Your task to perform on an android device: move an email to a new category in the gmail app Image 0: 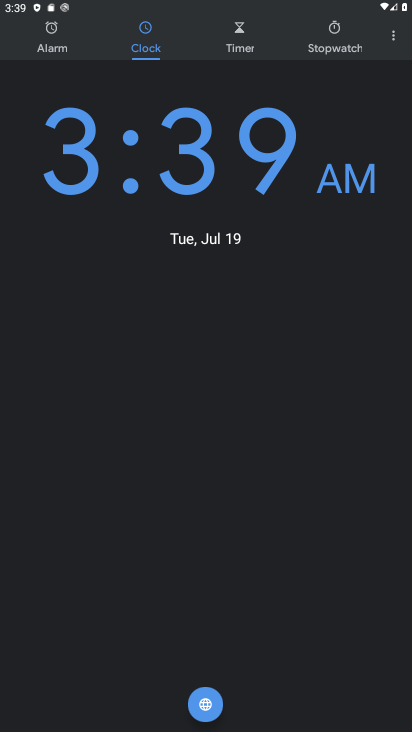
Step 0: press home button
Your task to perform on an android device: move an email to a new category in the gmail app Image 1: 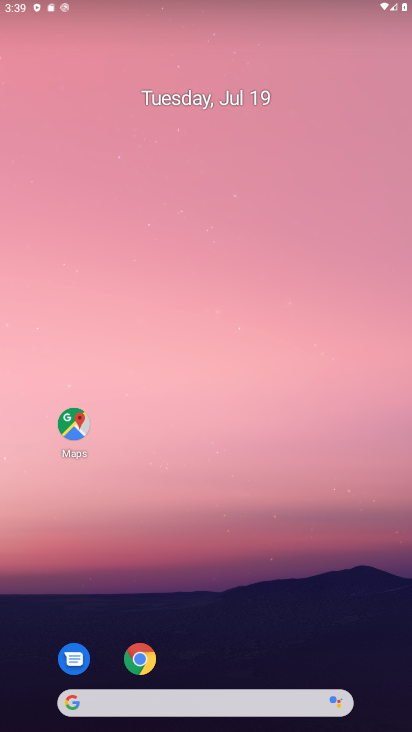
Step 1: drag from (207, 533) to (247, 86)
Your task to perform on an android device: move an email to a new category in the gmail app Image 2: 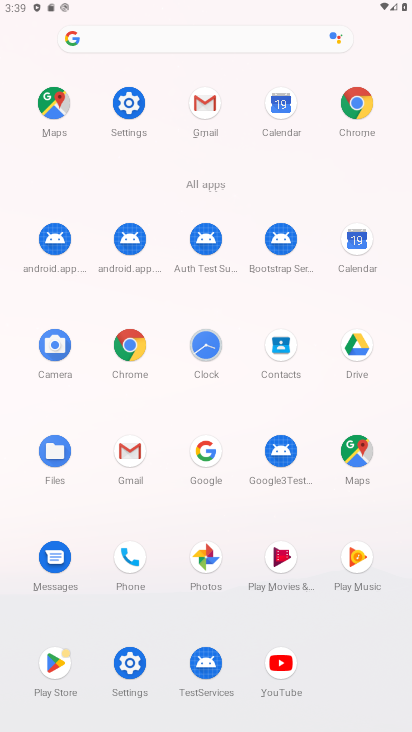
Step 2: click (134, 452)
Your task to perform on an android device: move an email to a new category in the gmail app Image 3: 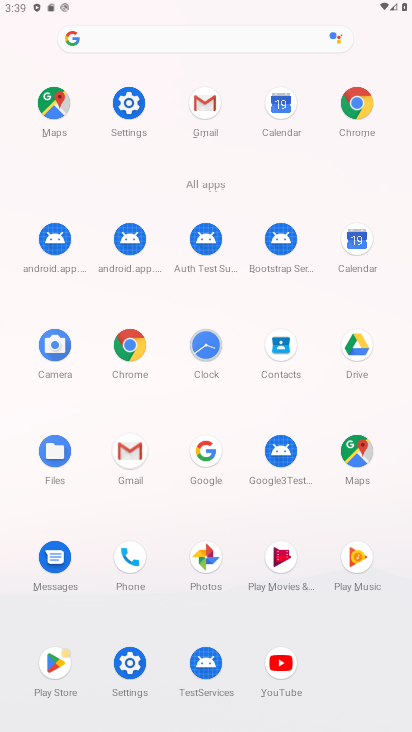
Step 3: click (131, 446)
Your task to perform on an android device: move an email to a new category in the gmail app Image 4: 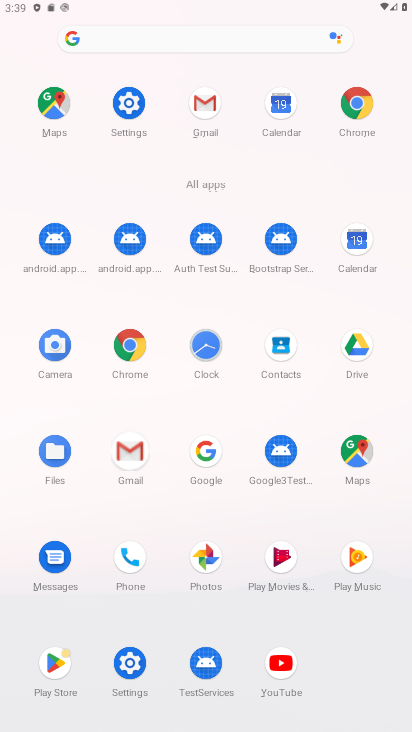
Step 4: click (129, 444)
Your task to perform on an android device: move an email to a new category in the gmail app Image 5: 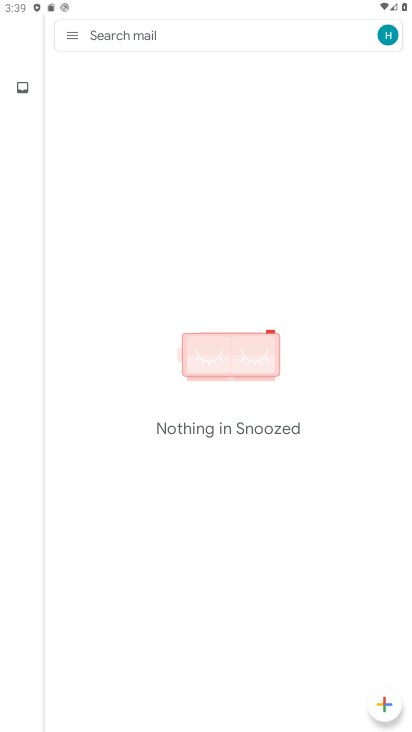
Step 5: click (73, 29)
Your task to perform on an android device: move an email to a new category in the gmail app Image 6: 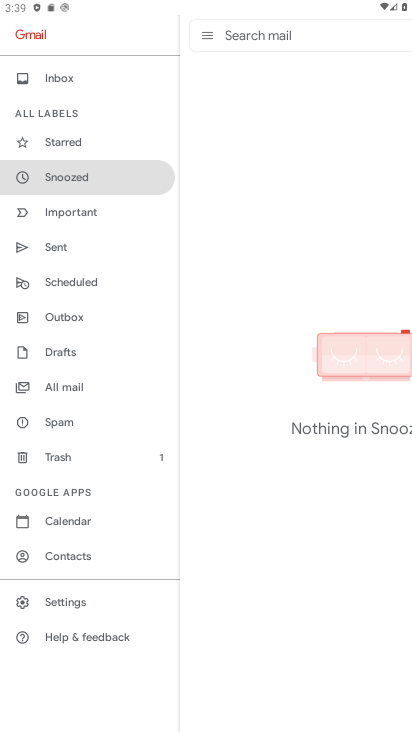
Step 6: click (67, 393)
Your task to perform on an android device: move an email to a new category in the gmail app Image 7: 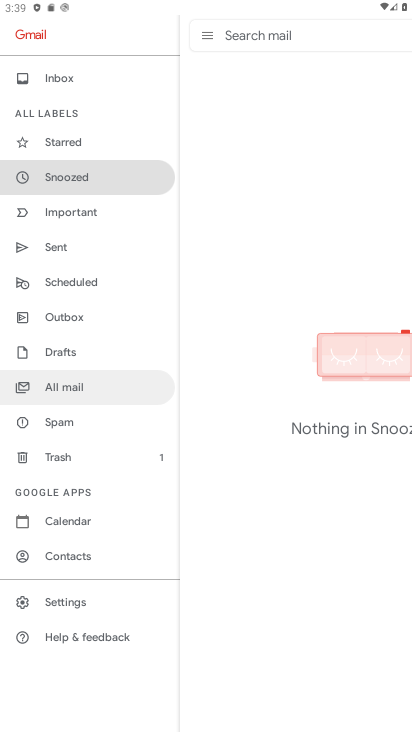
Step 7: click (66, 389)
Your task to perform on an android device: move an email to a new category in the gmail app Image 8: 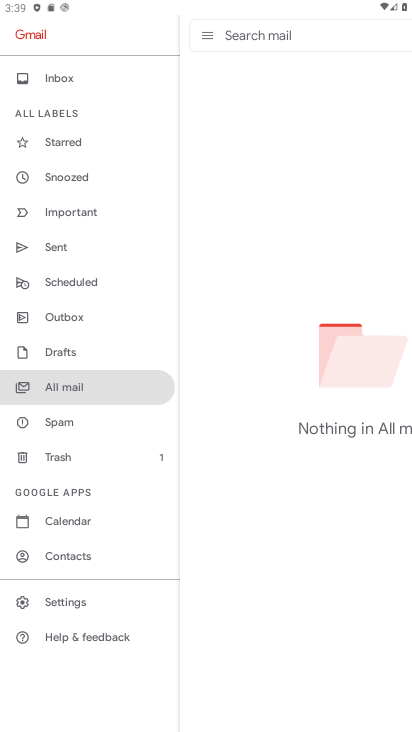
Step 8: click (91, 374)
Your task to perform on an android device: move an email to a new category in the gmail app Image 9: 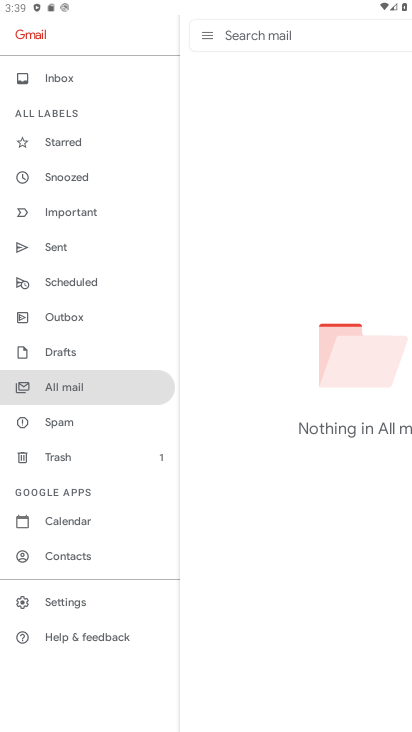
Step 9: task complete